Your task to perform on an android device: Go to privacy settings Image 0: 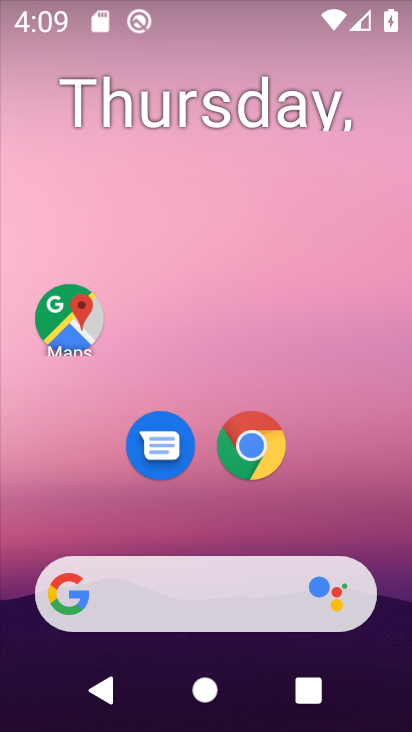
Step 0: drag from (354, 530) to (336, 101)
Your task to perform on an android device: Go to privacy settings Image 1: 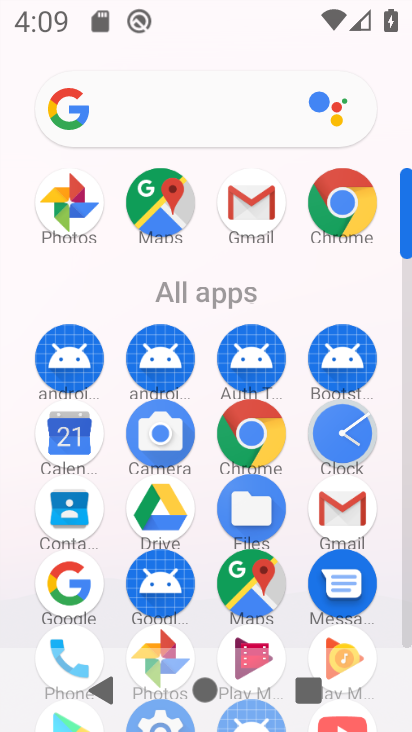
Step 1: click (262, 422)
Your task to perform on an android device: Go to privacy settings Image 2: 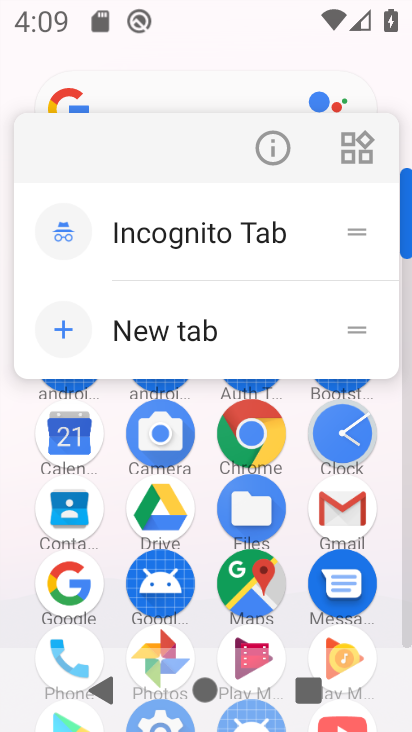
Step 2: click (257, 439)
Your task to perform on an android device: Go to privacy settings Image 3: 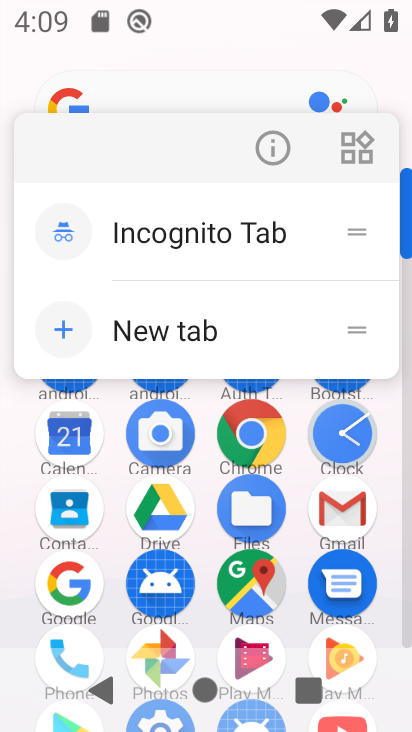
Step 3: click (252, 439)
Your task to perform on an android device: Go to privacy settings Image 4: 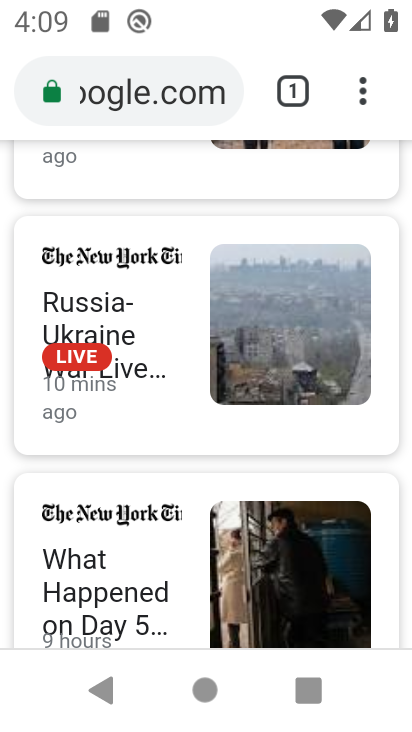
Step 4: drag from (356, 91) to (191, 485)
Your task to perform on an android device: Go to privacy settings Image 5: 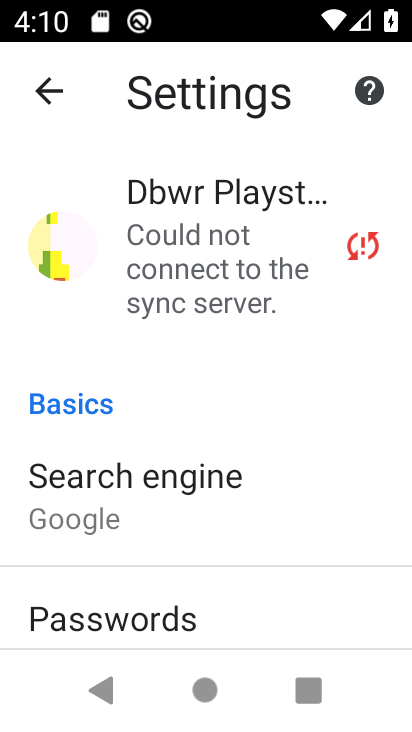
Step 5: drag from (369, 495) to (383, 173)
Your task to perform on an android device: Go to privacy settings Image 6: 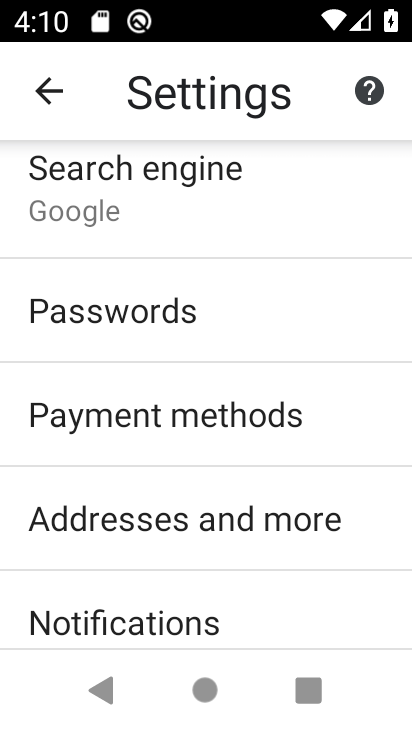
Step 6: drag from (316, 610) to (320, 180)
Your task to perform on an android device: Go to privacy settings Image 7: 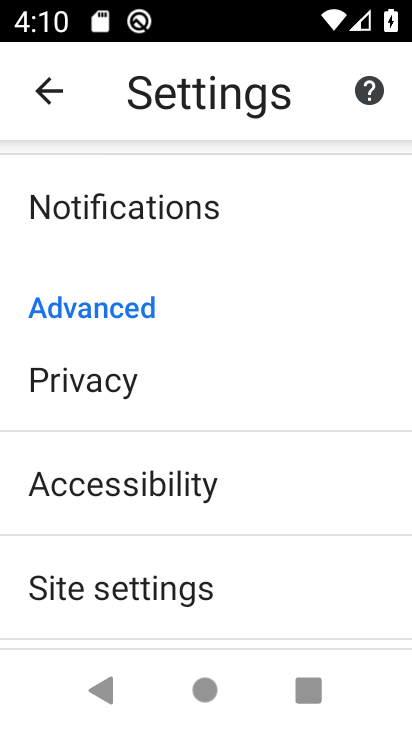
Step 7: click (97, 378)
Your task to perform on an android device: Go to privacy settings Image 8: 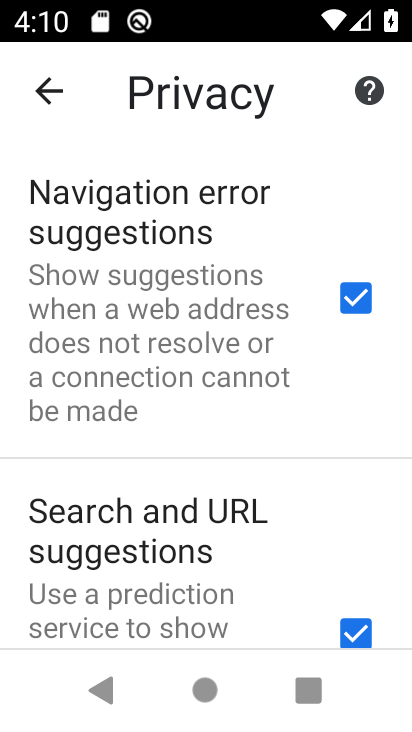
Step 8: task complete